Your task to perform on an android device: all mails in gmail Image 0: 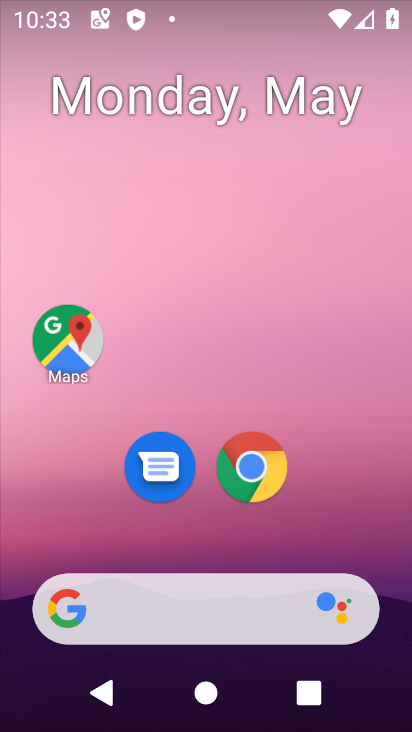
Step 0: drag from (399, 619) to (345, 165)
Your task to perform on an android device: all mails in gmail Image 1: 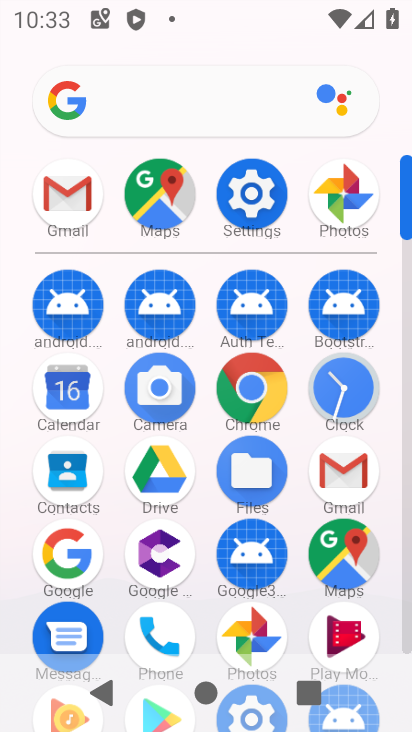
Step 1: click (404, 640)
Your task to perform on an android device: all mails in gmail Image 2: 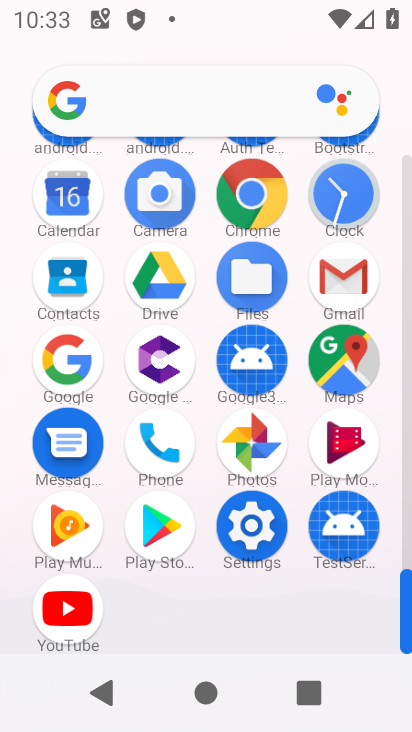
Step 2: click (340, 272)
Your task to perform on an android device: all mails in gmail Image 3: 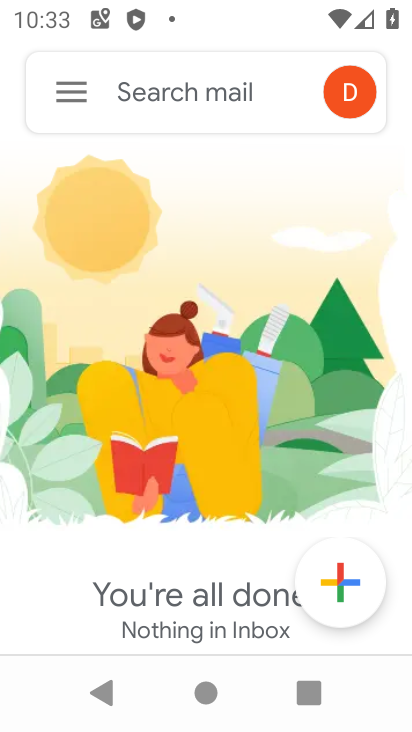
Step 3: click (68, 95)
Your task to perform on an android device: all mails in gmail Image 4: 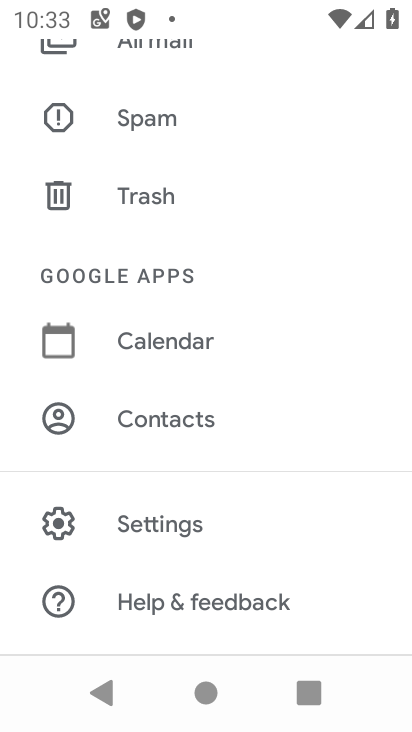
Step 4: click (176, 43)
Your task to perform on an android device: all mails in gmail Image 5: 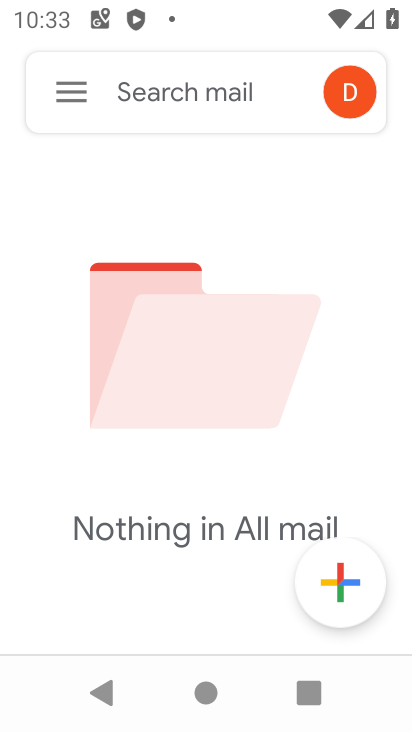
Step 5: task complete